Your task to perform on an android device: Open the calendar and show me this week's events Image 0: 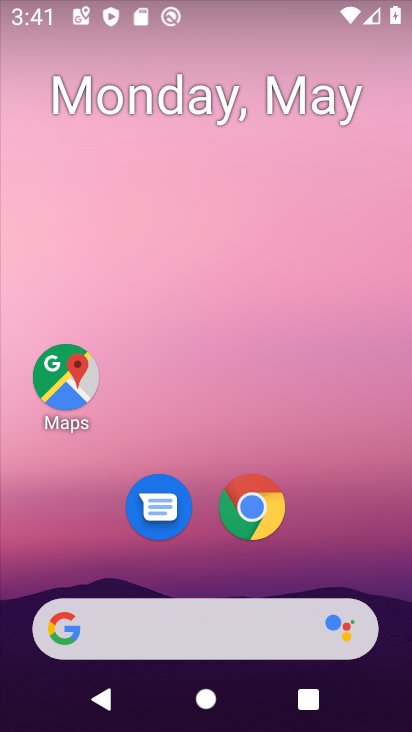
Step 0: click (183, 113)
Your task to perform on an android device: Open the calendar and show me this week's events Image 1: 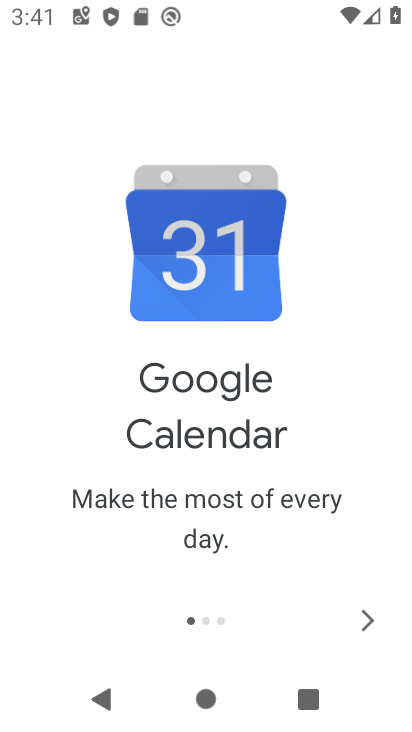
Step 1: click (359, 623)
Your task to perform on an android device: Open the calendar and show me this week's events Image 2: 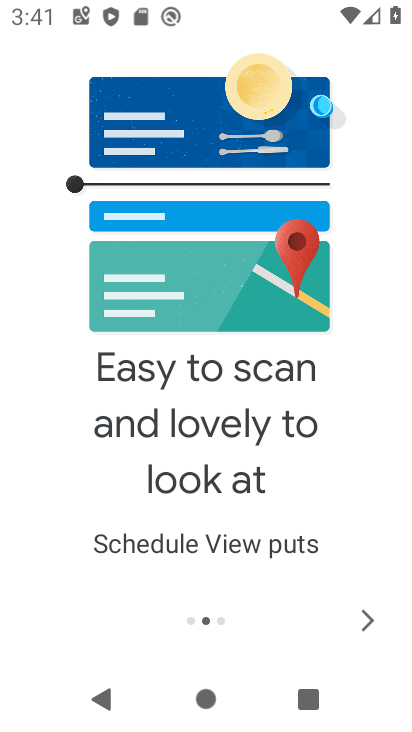
Step 2: click (359, 623)
Your task to perform on an android device: Open the calendar and show me this week's events Image 3: 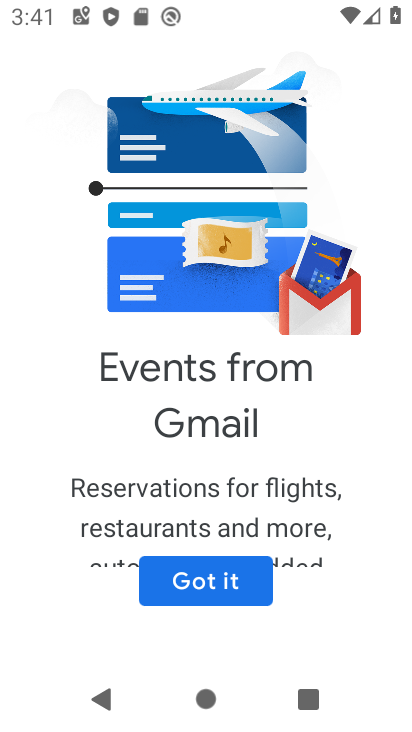
Step 3: click (212, 572)
Your task to perform on an android device: Open the calendar and show me this week's events Image 4: 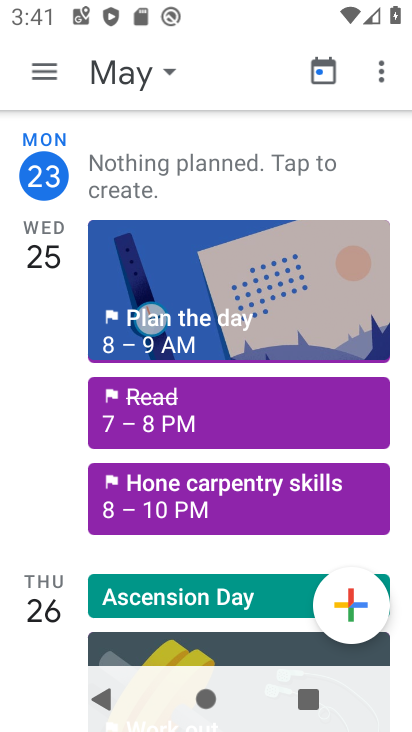
Step 4: click (166, 70)
Your task to perform on an android device: Open the calendar and show me this week's events Image 5: 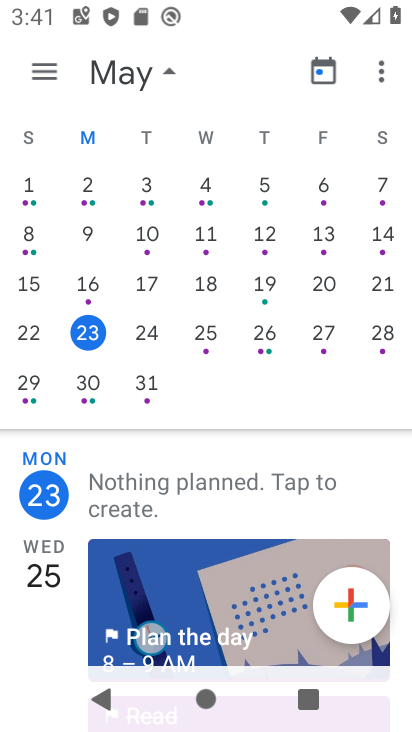
Step 5: click (45, 583)
Your task to perform on an android device: Open the calendar and show me this week's events Image 6: 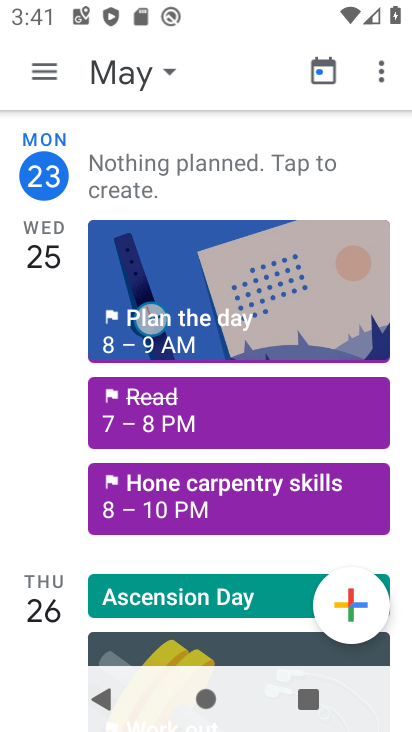
Step 6: click (36, 75)
Your task to perform on an android device: Open the calendar and show me this week's events Image 7: 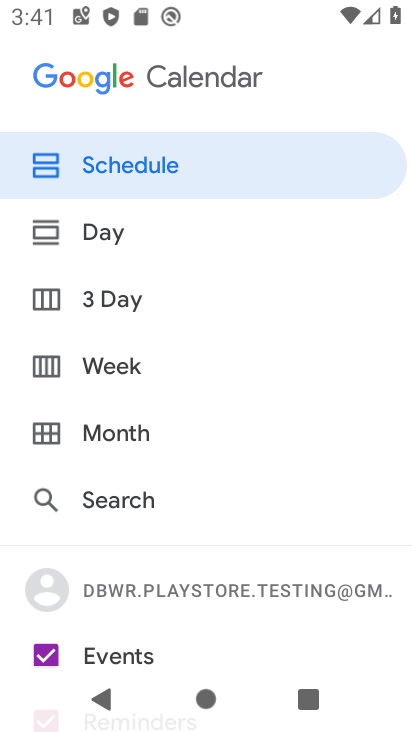
Step 7: click (95, 355)
Your task to perform on an android device: Open the calendar and show me this week's events Image 8: 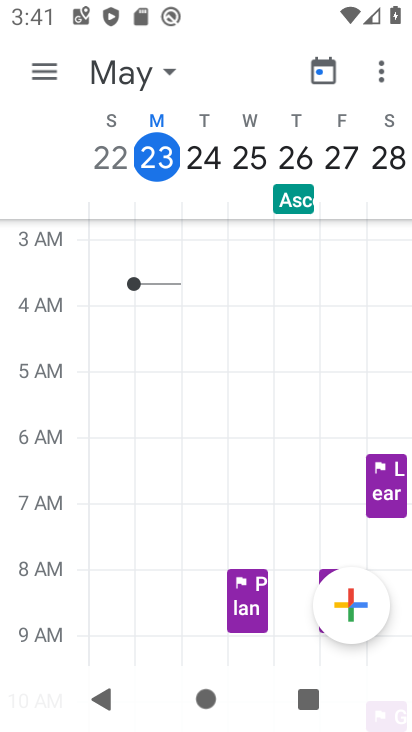
Step 8: task complete